Your task to perform on an android device: open app "Instagram" Image 0: 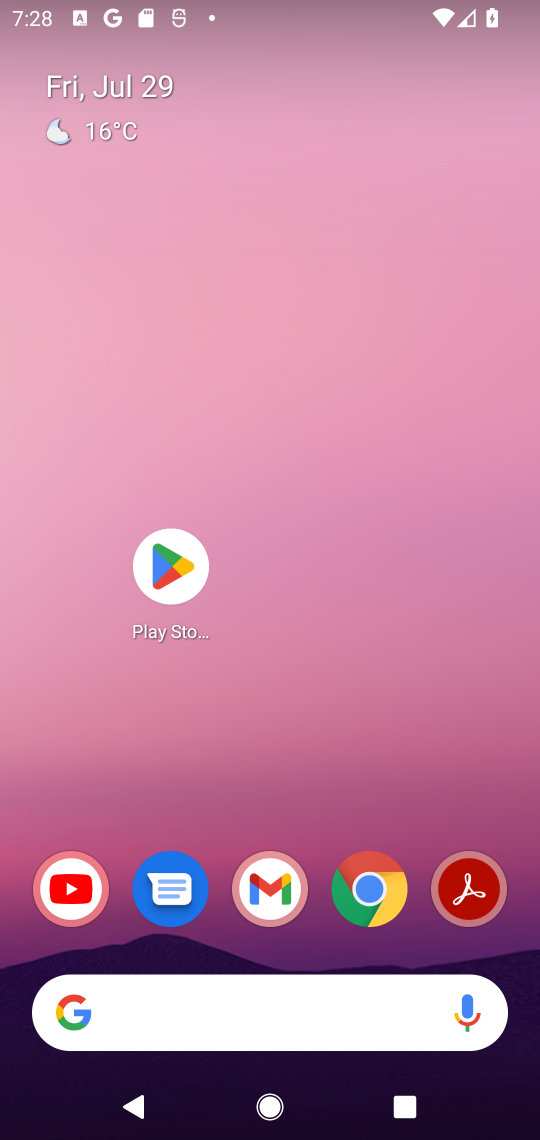
Step 0: click (173, 558)
Your task to perform on an android device: open app "Instagram" Image 1: 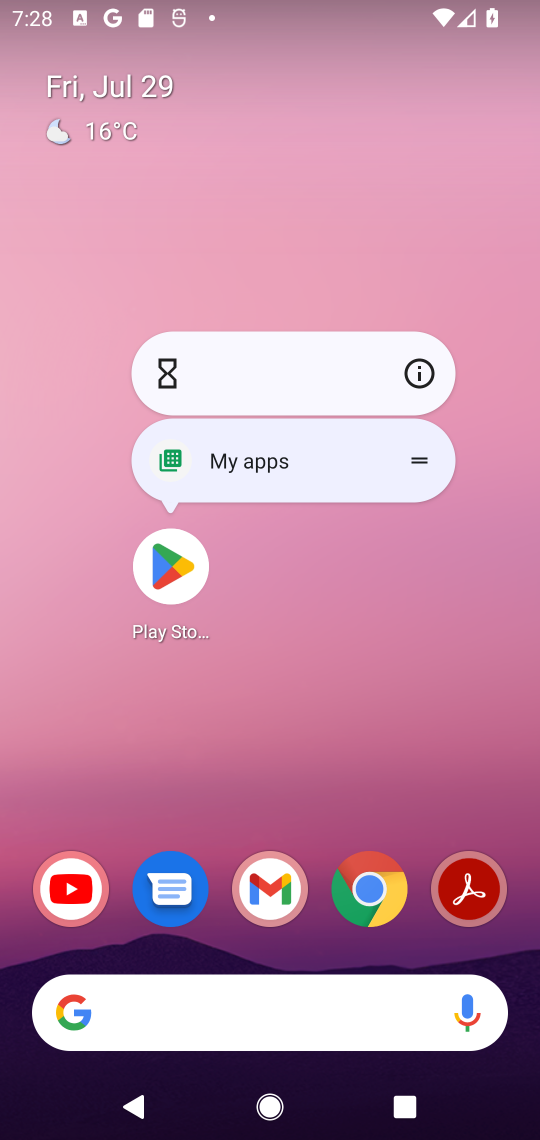
Step 1: click (155, 572)
Your task to perform on an android device: open app "Instagram" Image 2: 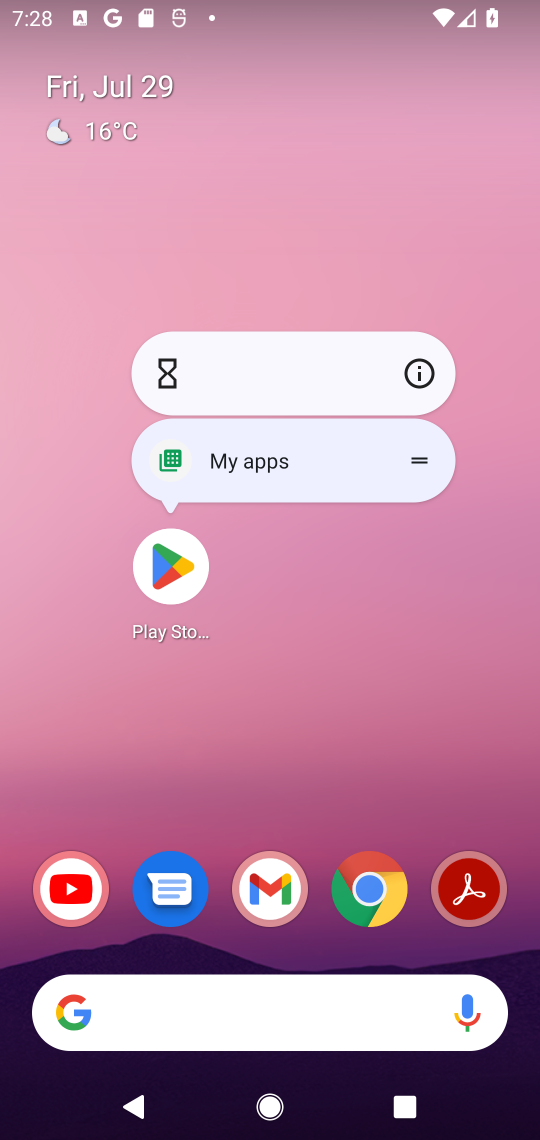
Step 2: click (172, 572)
Your task to perform on an android device: open app "Instagram" Image 3: 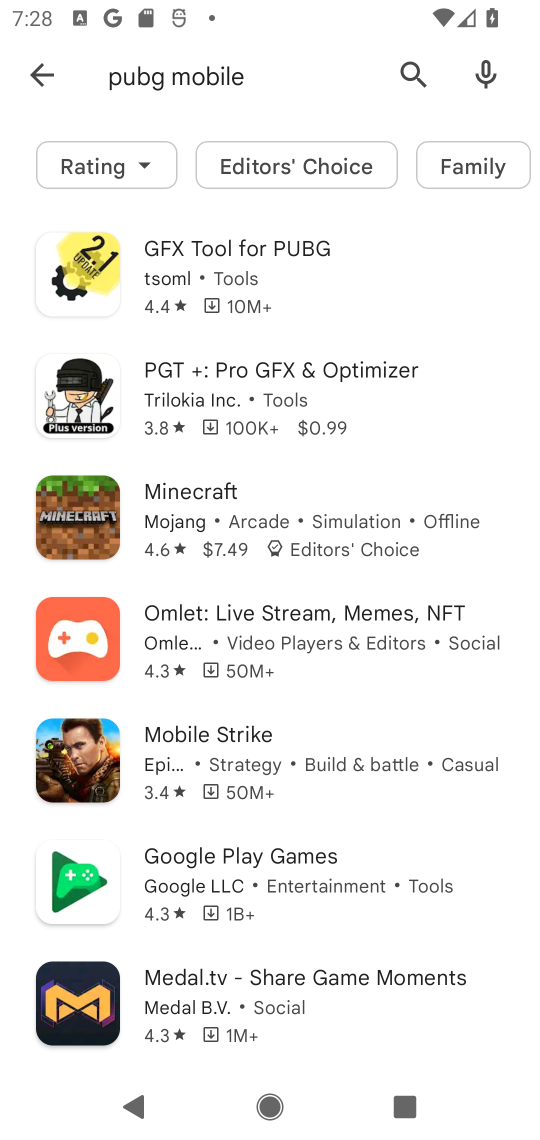
Step 3: click (410, 61)
Your task to perform on an android device: open app "Instagram" Image 4: 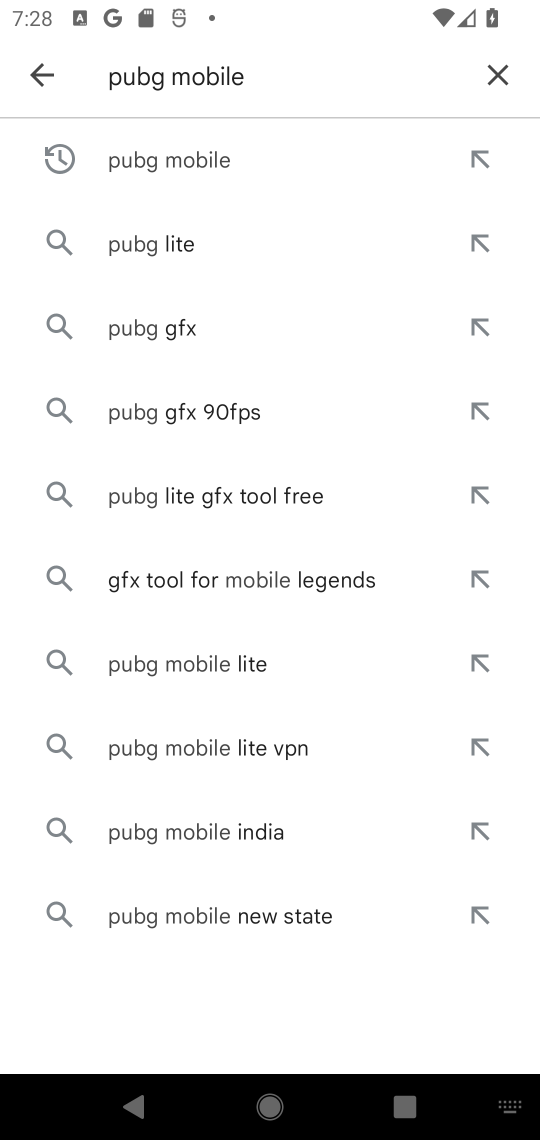
Step 4: click (496, 65)
Your task to perform on an android device: open app "Instagram" Image 5: 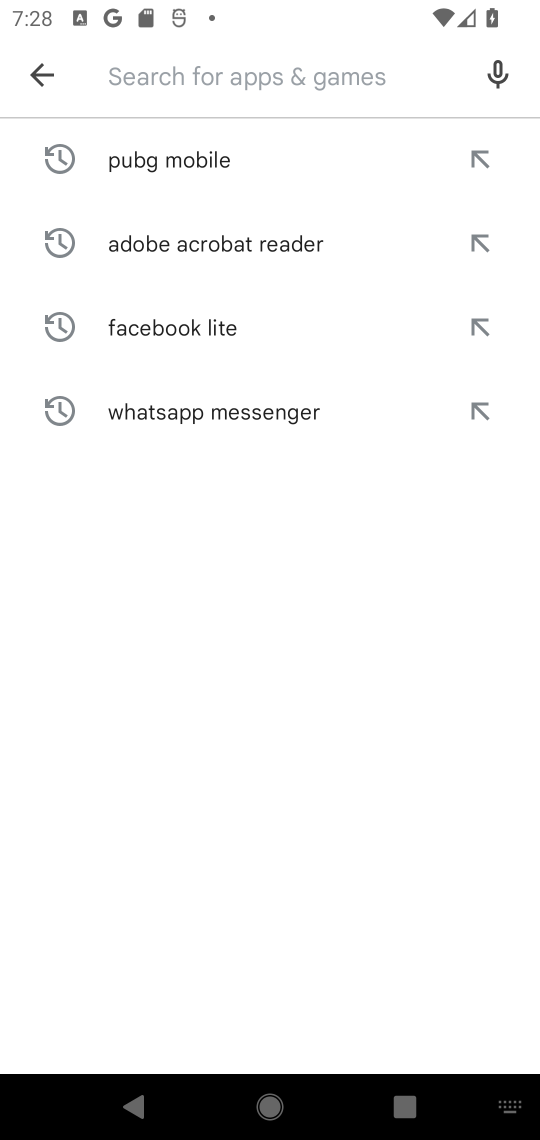
Step 5: type "Instagram"
Your task to perform on an android device: open app "Instagram" Image 6: 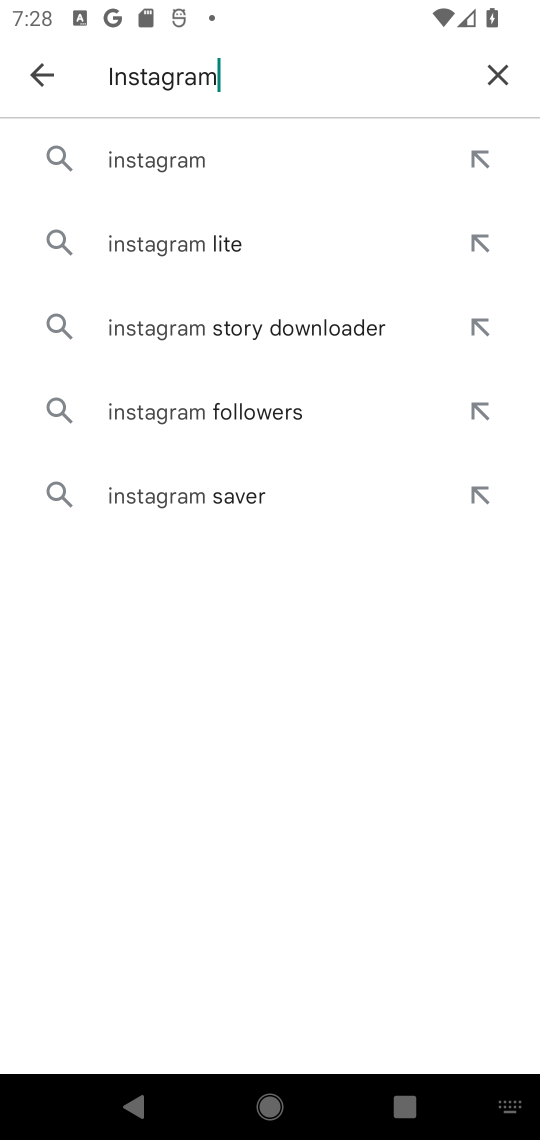
Step 6: click (186, 155)
Your task to perform on an android device: open app "Instagram" Image 7: 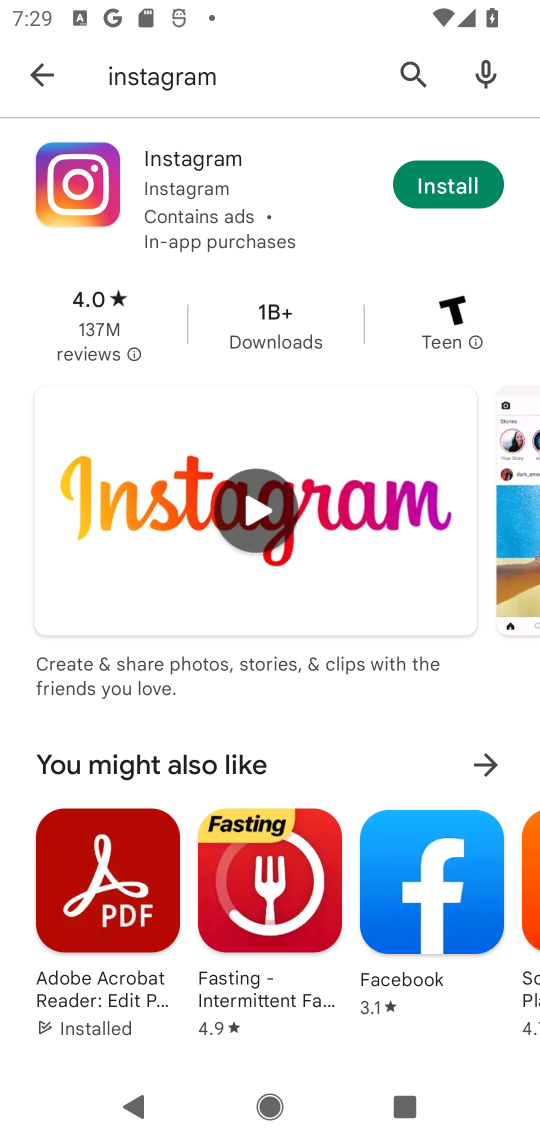
Step 7: task complete